Your task to perform on an android device: Open the calendar app, open the side menu, and click the "Day" option Image 0: 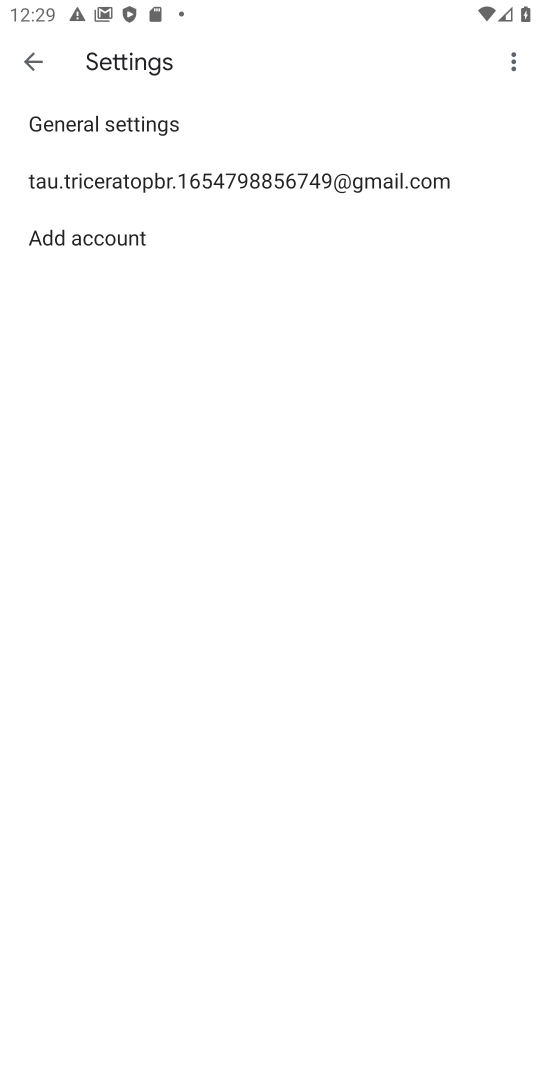
Step 0: press home button
Your task to perform on an android device: Open the calendar app, open the side menu, and click the "Day" option Image 1: 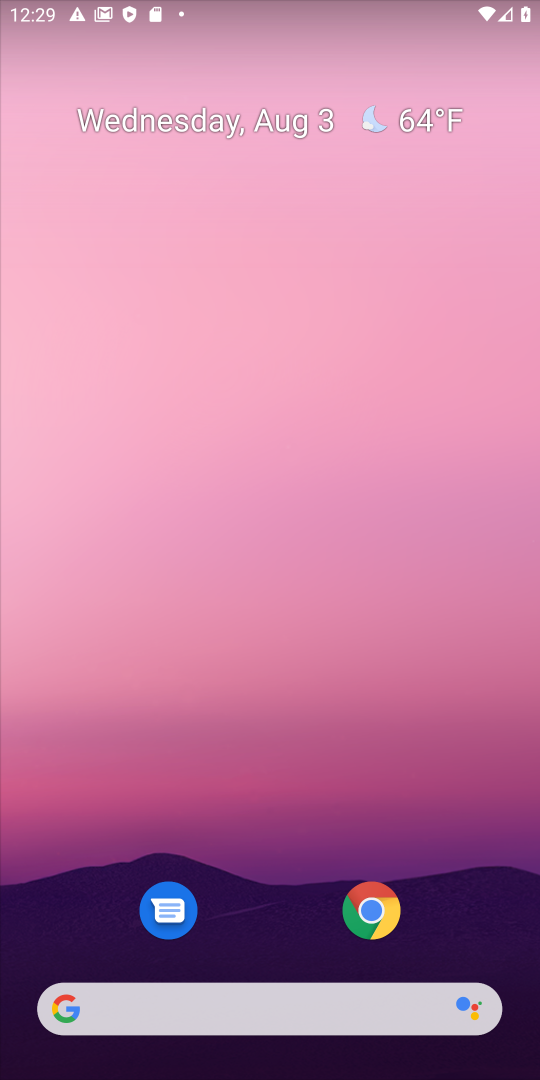
Step 1: drag from (394, 970) to (530, 449)
Your task to perform on an android device: Open the calendar app, open the side menu, and click the "Day" option Image 2: 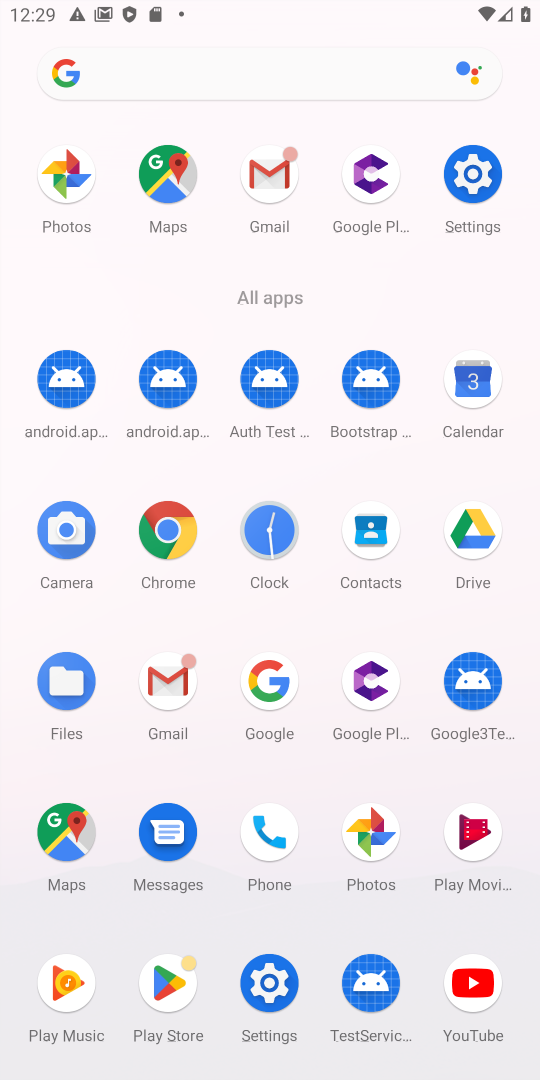
Step 2: click (477, 374)
Your task to perform on an android device: Open the calendar app, open the side menu, and click the "Day" option Image 3: 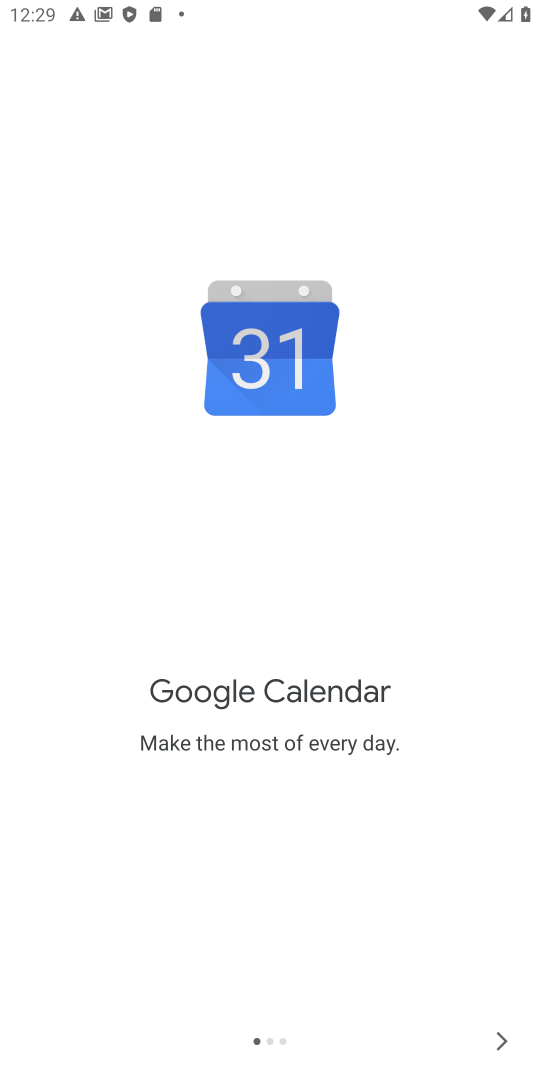
Step 3: click (509, 1037)
Your task to perform on an android device: Open the calendar app, open the side menu, and click the "Day" option Image 4: 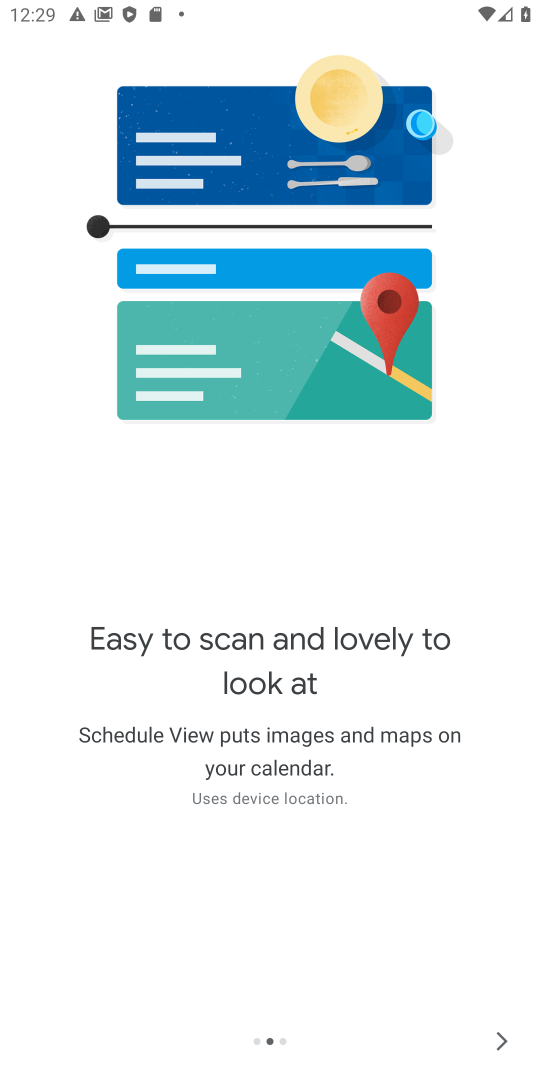
Step 4: click (490, 684)
Your task to perform on an android device: Open the calendar app, open the side menu, and click the "Day" option Image 5: 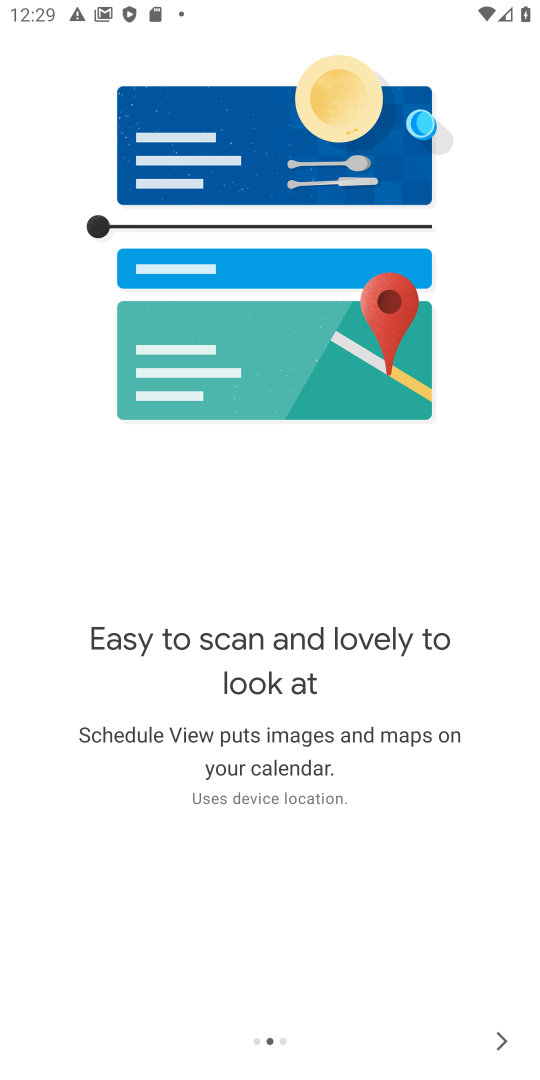
Step 5: click (503, 1037)
Your task to perform on an android device: Open the calendar app, open the side menu, and click the "Day" option Image 6: 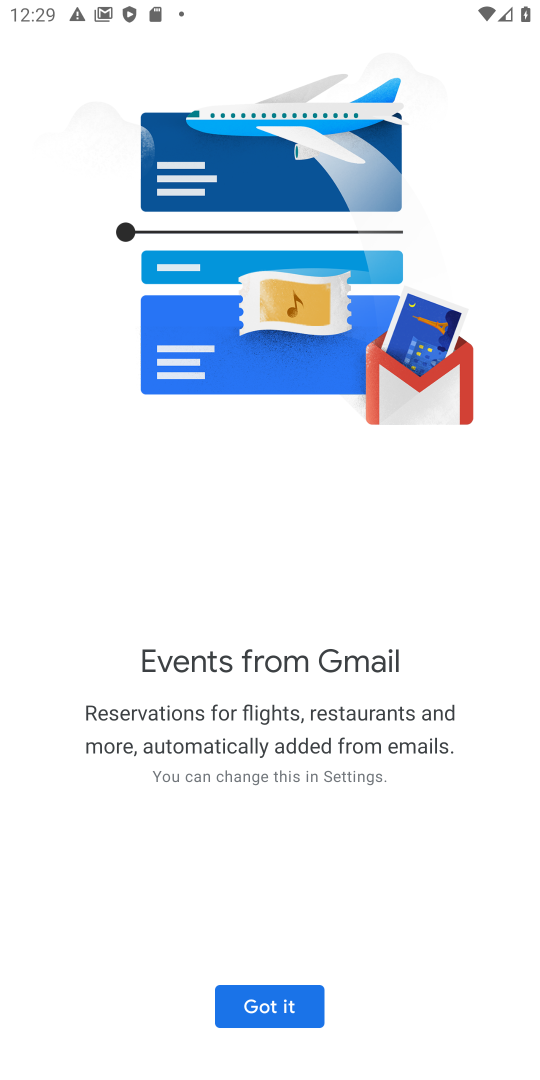
Step 6: click (301, 1005)
Your task to perform on an android device: Open the calendar app, open the side menu, and click the "Day" option Image 7: 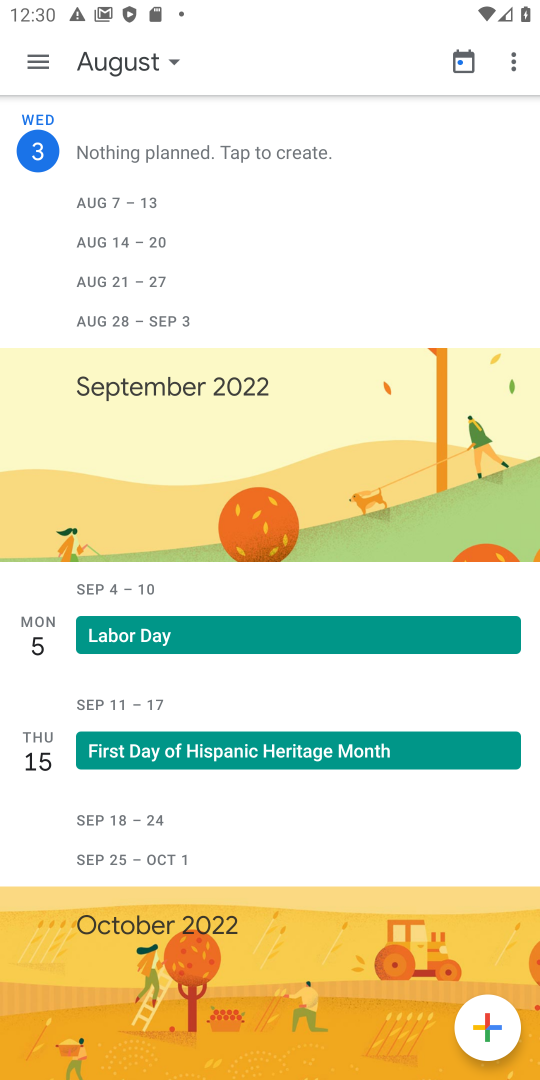
Step 7: click (42, 58)
Your task to perform on an android device: Open the calendar app, open the side menu, and click the "Day" option Image 8: 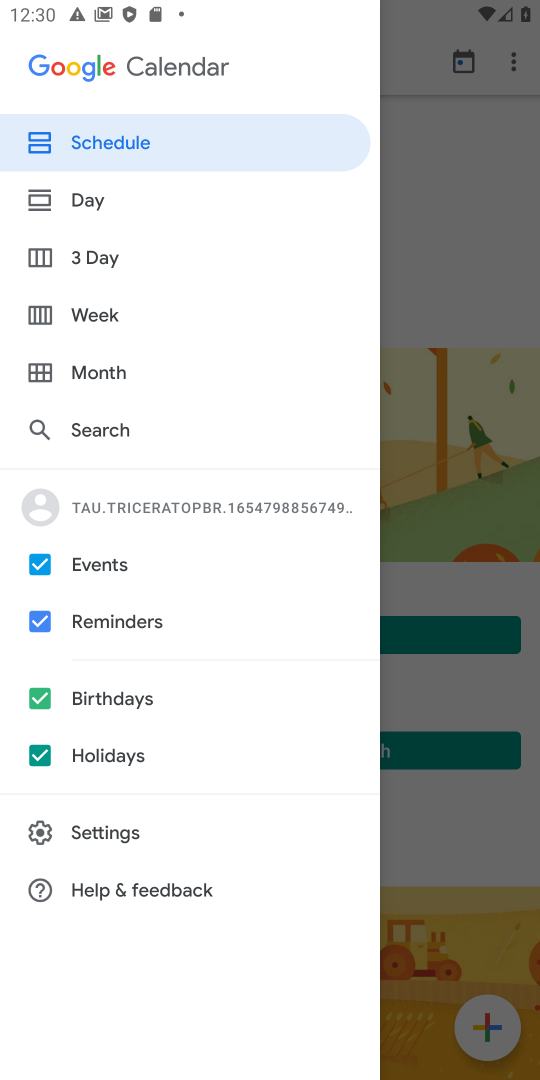
Step 8: click (127, 195)
Your task to perform on an android device: Open the calendar app, open the side menu, and click the "Day" option Image 9: 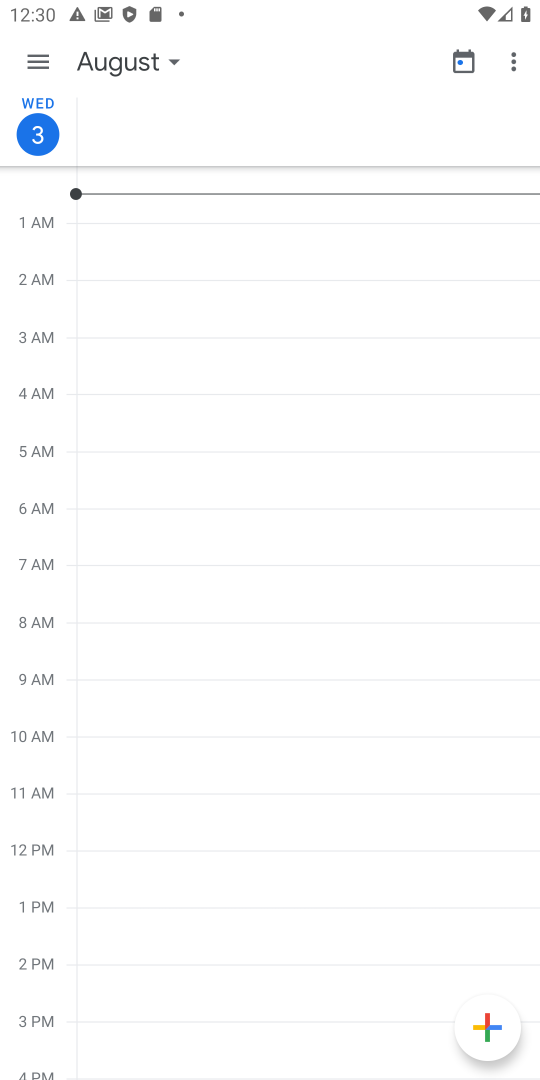
Step 9: task complete